Your task to perform on an android device: Go to Google maps Image 0: 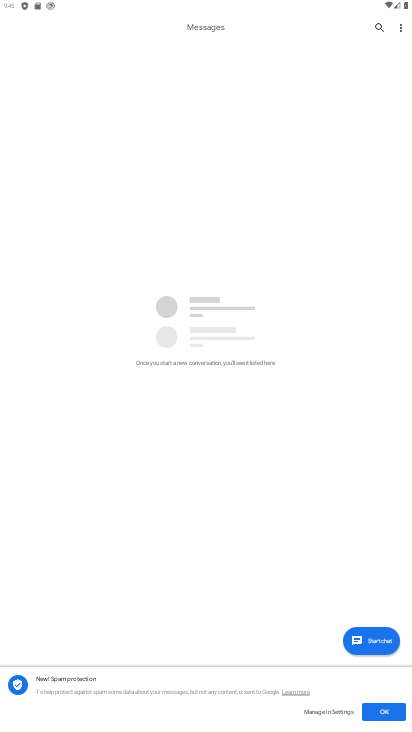
Step 0: press home button
Your task to perform on an android device: Go to Google maps Image 1: 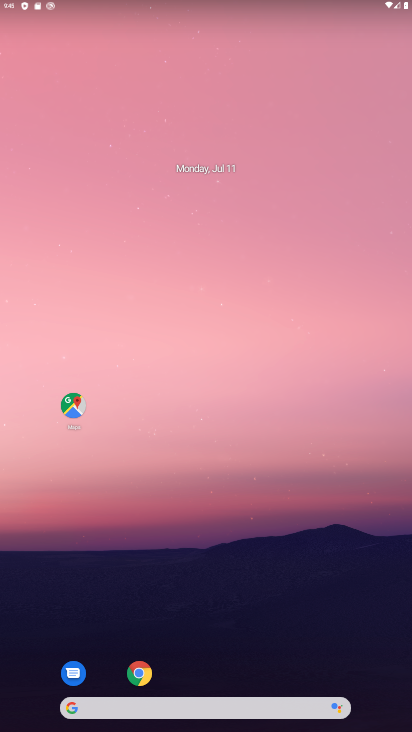
Step 1: drag from (228, 674) to (341, 100)
Your task to perform on an android device: Go to Google maps Image 2: 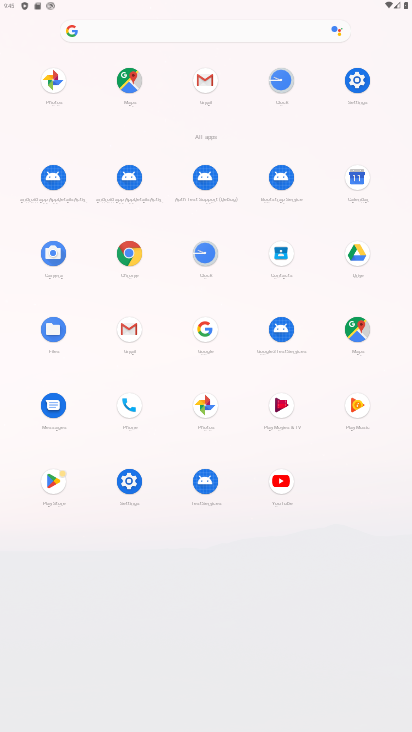
Step 2: click (344, 329)
Your task to perform on an android device: Go to Google maps Image 3: 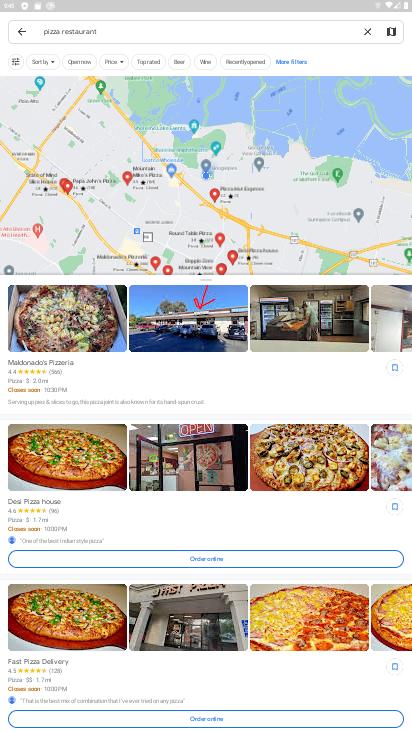
Step 3: task complete